Your task to perform on an android device: turn off improve location accuracy Image 0: 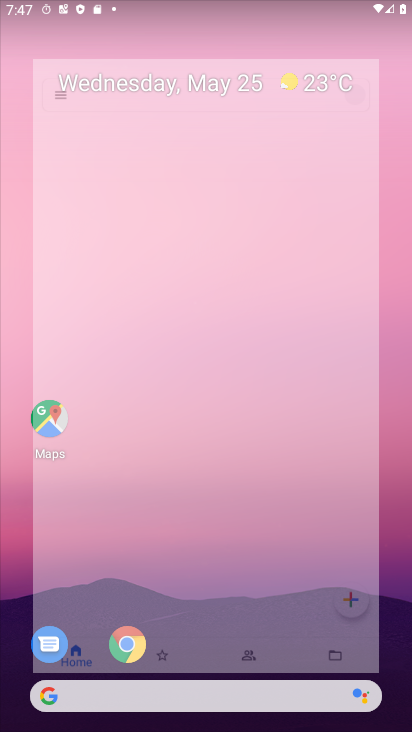
Step 0: press home button
Your task to perform on an android device: turn off improve location accuracy Image 1: 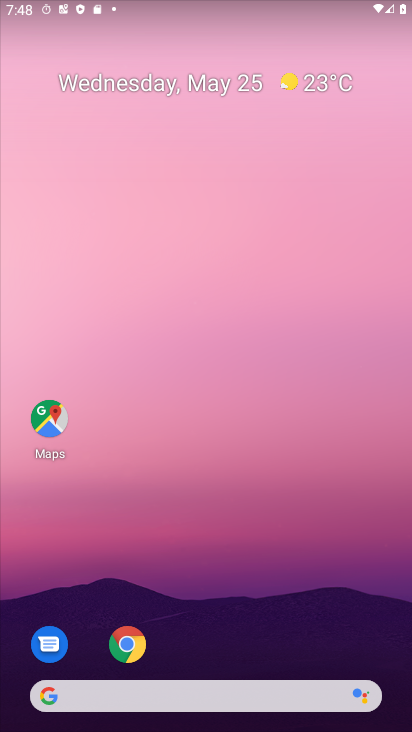
Step 1: drag from (232, 710) to (258, 113)
Your task to perform on an android device: turn off improve location accuracy Image 2: 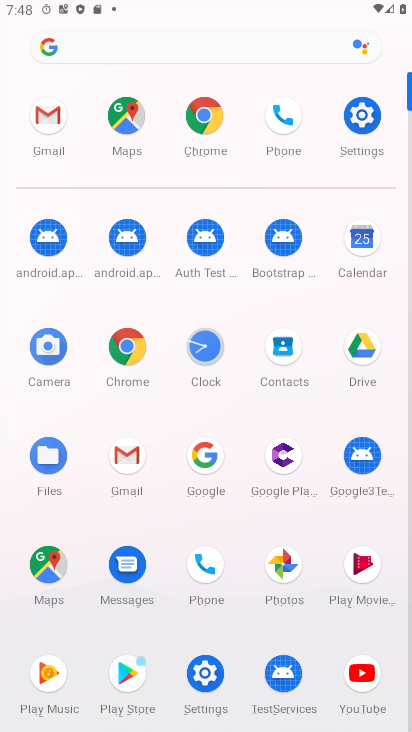
Step 2: click (361, 119)
Your task to perform on an android device: turn off improve location accuracy Image 3: 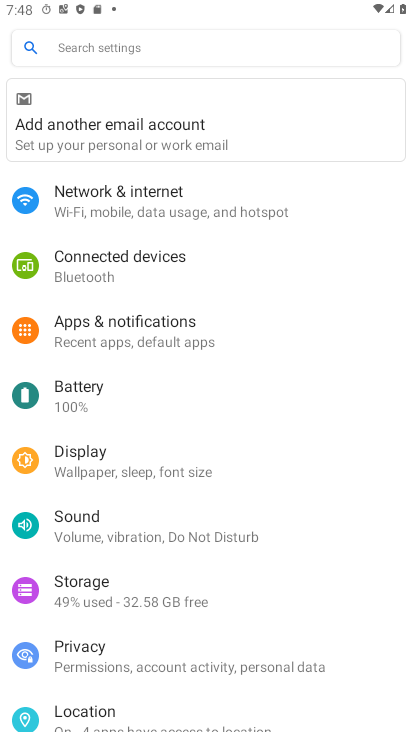
Step 3: click (141, 49)
Your task to perform on an android device: turn off improve location accuracy Image 4: 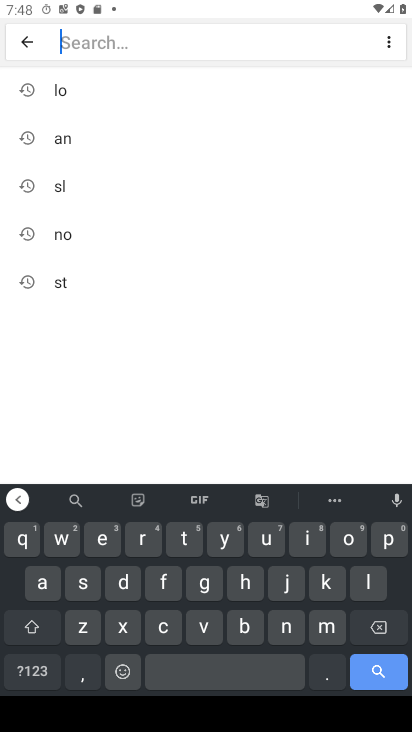
Step 4: click (69, 97)
Your task to perform on an android device: turn off improve location accuracy Image 5: 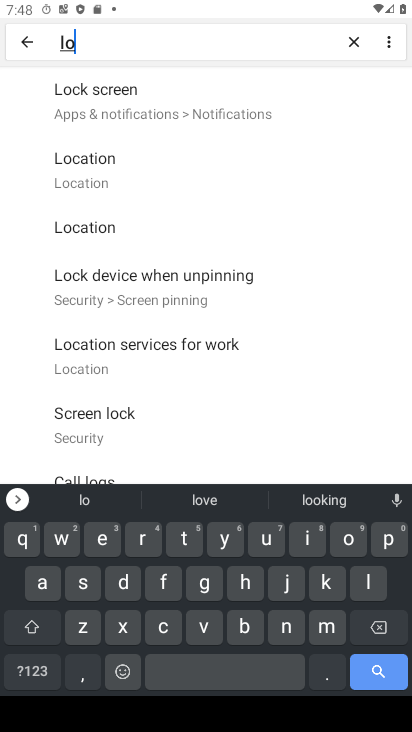
Step 5: click (114, 172)
Your task to perform on an android device: turn off improve location accuracy Image 6: 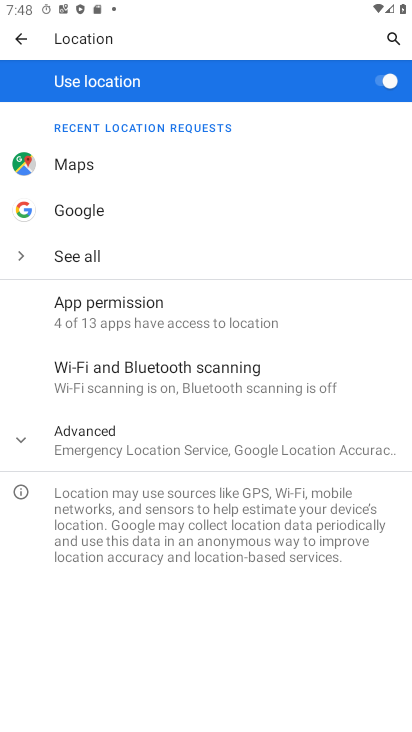
Step 6: click (64, 435)
Your task to perform on an android device: turn off improve location accuracy Image 7: 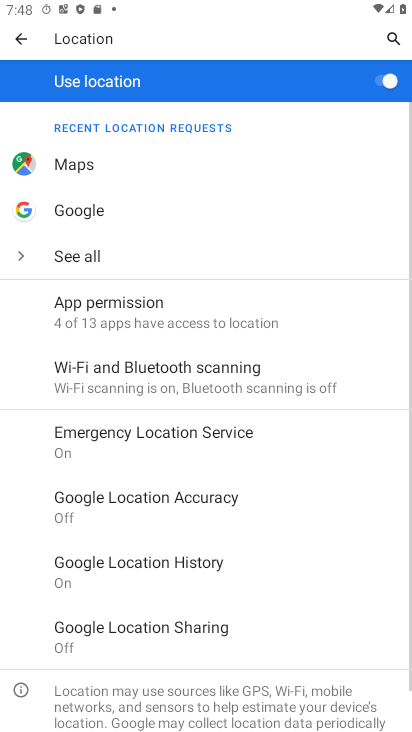
Step 7: click (173, 502)
Your task to perform on an android device: turn off improve location accuracy Image 8: 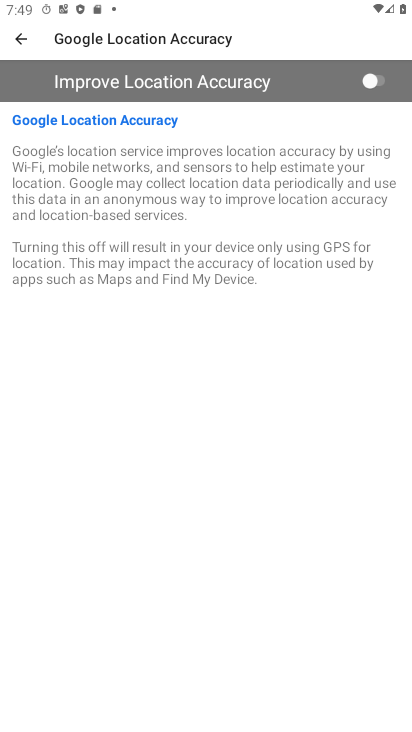
Step 8: click (382, 75)
Your task to perform on an android device: turn off improve location accuracy Image 9: 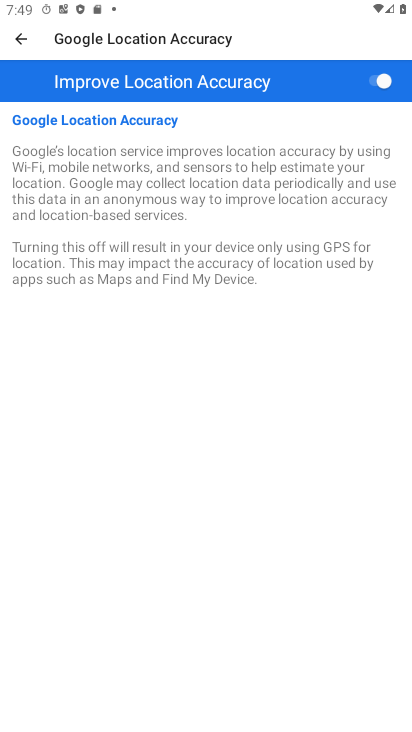
Step 9: click (380, 86)
Your task to perform on an android device: turn off improve location accuracy Image 10: 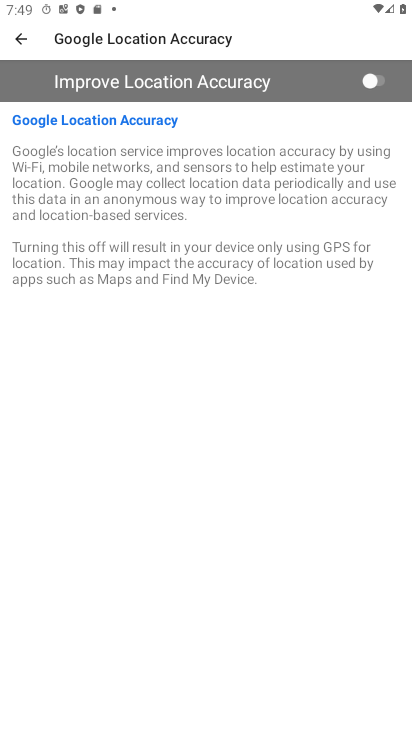
Step 10: task complete